Your task to perform on an android device: When is my next appointment? Image 0: 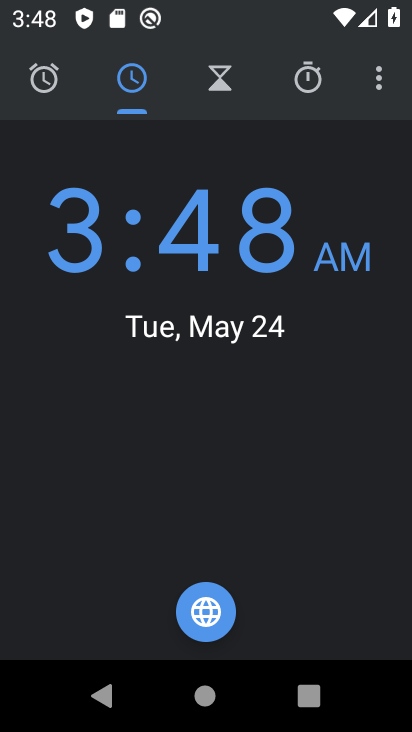
Step 0: press home button
Your task to perform on an android device: When is my next appointment? Image 1: 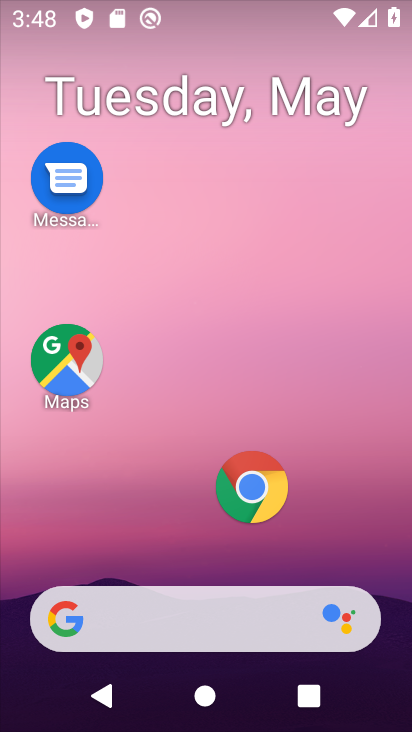
Step 1: drag from (171, 558) to (211, 24)
Your task to perform on an android device: When is my next appointment? Image 2: 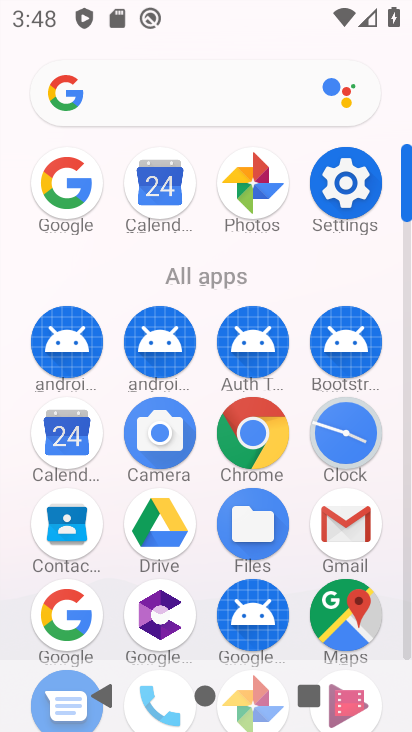
Step 2: click (171, 199)
Your task to perform on an android device: When is my next appointment? Image 3: 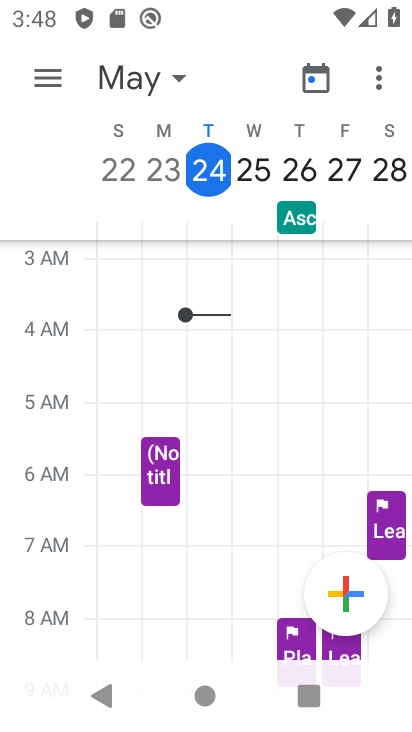
Step 3: click (63, 95)
Your task to perform on an android device: When is my next appointment? Image 4: 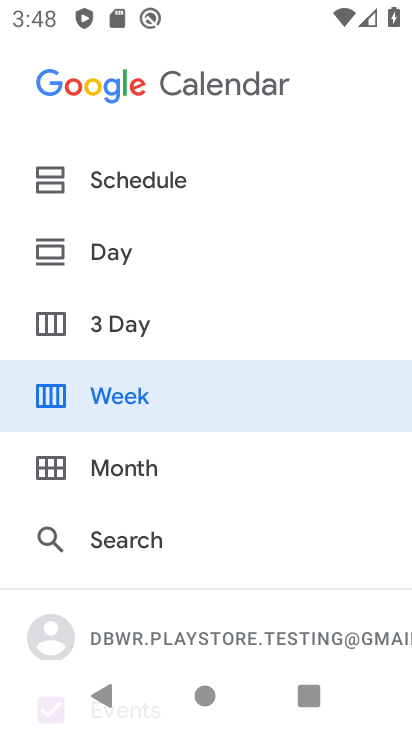
Step 4: click (125, 184)
Your task to perform on an android device: When is my next appointment? Image 5: 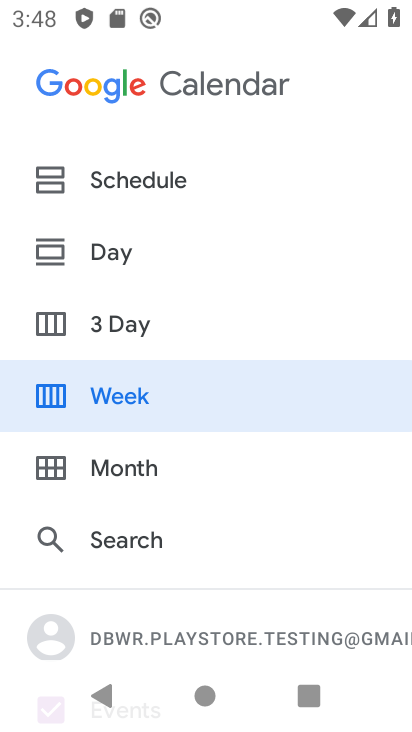
Step 5: click (133, 173)
Your task to perform on an android device: When is my next appointment? Image 6: 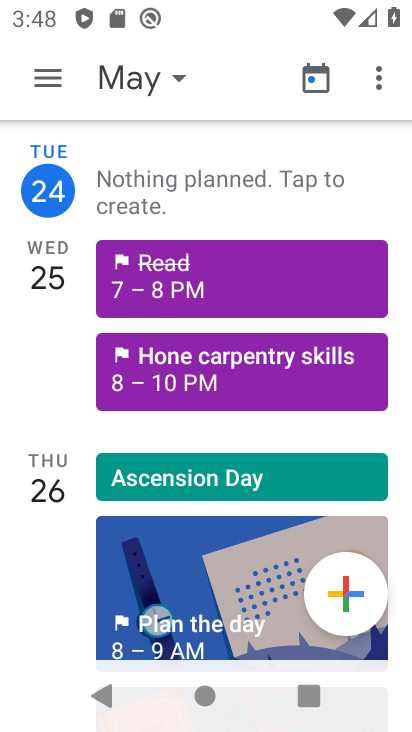
Step 6: task complete